Your task to perform on an android device: empty trash in the gmail app Image 0: 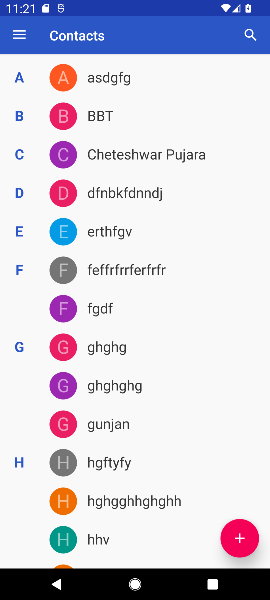
Step 0: press home button
Your task to perform on an android device: empty trash in the gmail app Image 1: 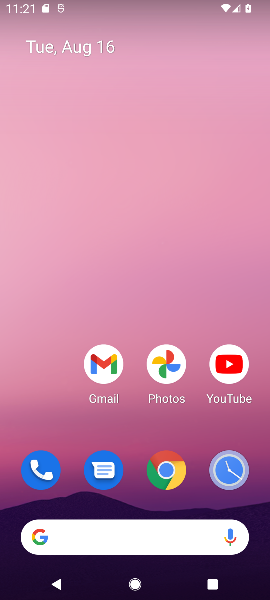
Step 1: click (105, 361)
Your task to perform on an android device: empty trash in the gmail app Image 2: 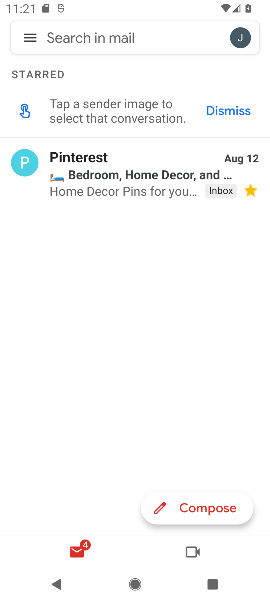
Step 2: click (28, 37)
Your task to perform on an android device: empty trash in the gmail app Image 3: 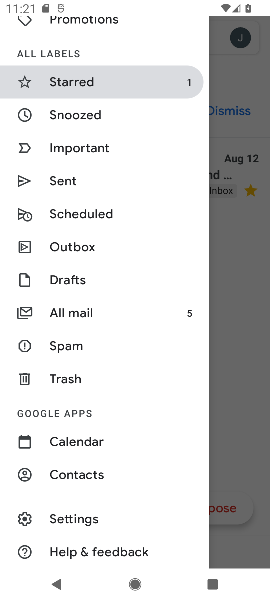
Step 3: click (72, 376)
Your task to perform on an android device: empty trash in the gmail app Image 4: 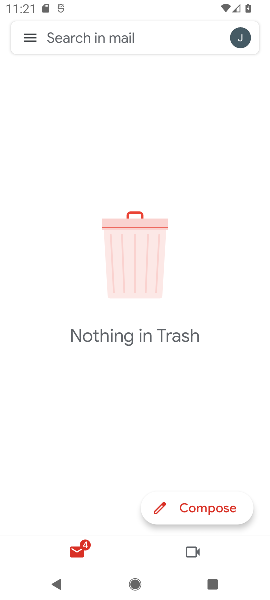
Step 4: task complete